Your task to perform on an android device: toggle wifi Image 0: 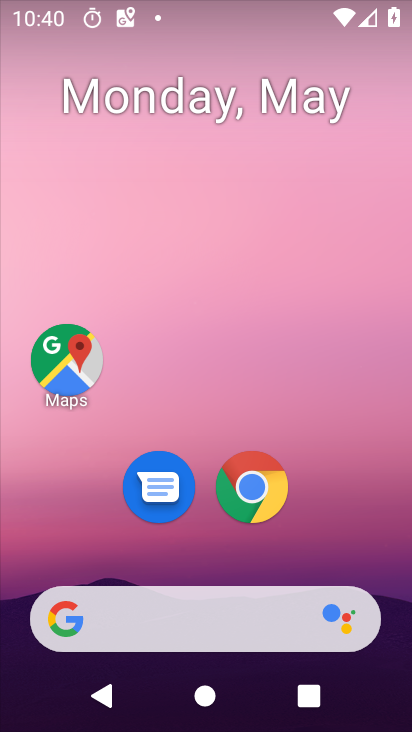
Step 0: drag from (306, 544) to (324, 118)
Your task to perform on an android device: toggle wifi Image 1: 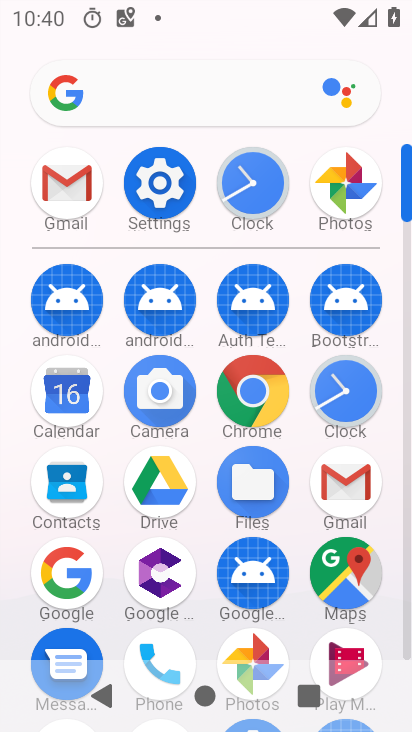
Step 1: click (147, 166)
Your task to perform on an android device: toggle wifi Image 2: 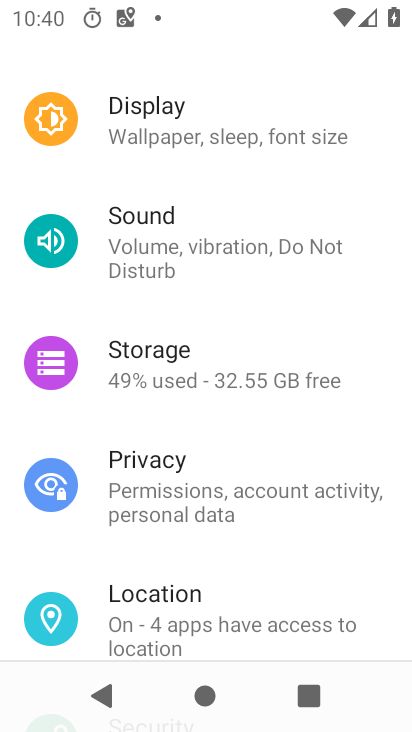
Step 2: drag from (221, 206) to (248, 352)
Your task to perform on an android device: toggle wifi Image 3: 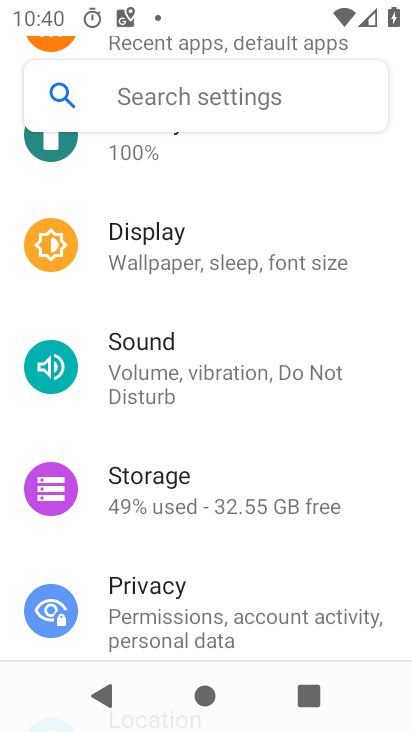
Step 3: drag from (219, 230) to (233, 335)
Your task to perform on an android device: toggle wifi Image 4: 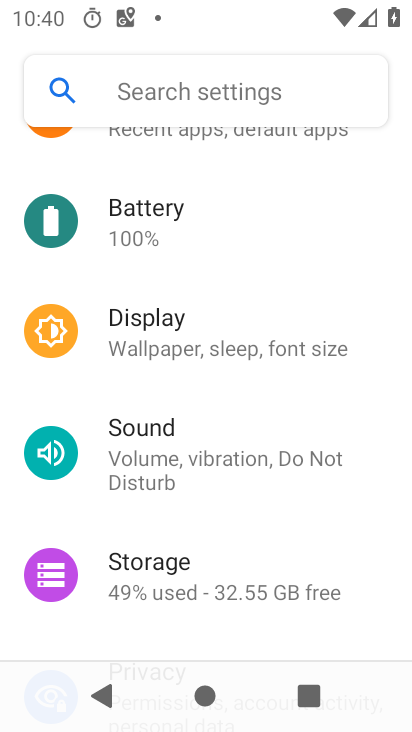
Step 4: drag from (211, 202) to (220, 309)
Your task to perform on an android device: toggle wifi Image 5: 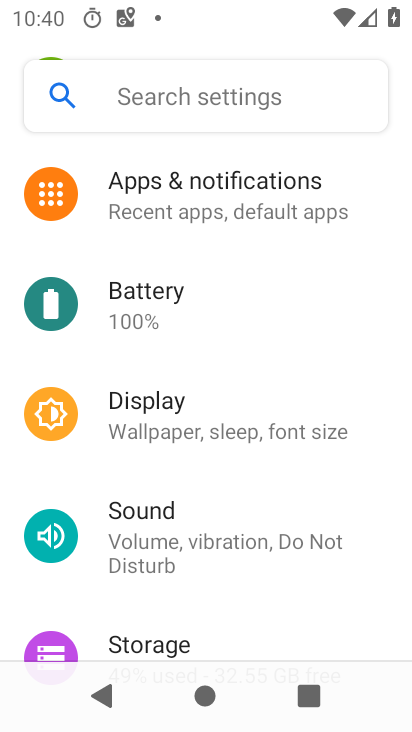
Step 5: drag from (201, 207) to (219, 300)
Your task to perform on an android device: toggle wifi Image 6: 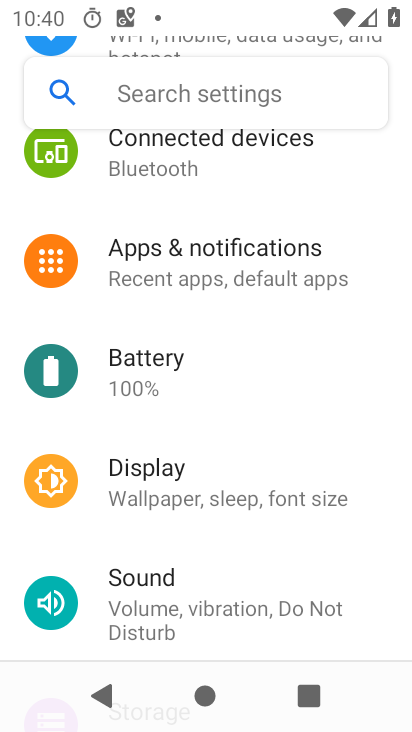
Step 6: drag from (198, 256) to (179, 399)
Your task to perform on an android device: toggle wifi Image 7: 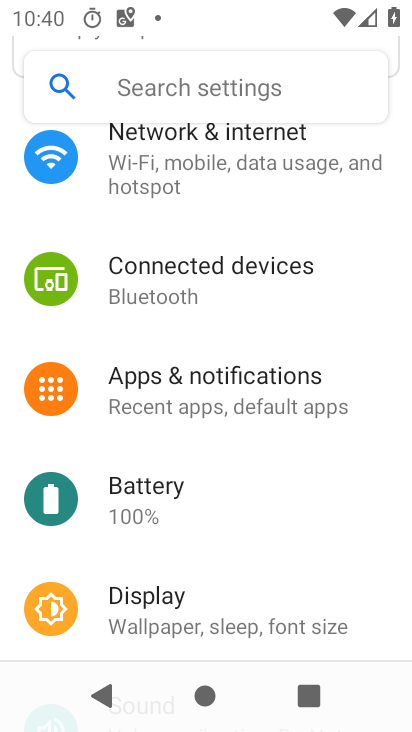
Step 7: click (197, 179)
Your task to perform on an android device: toggle wifi Image 8: 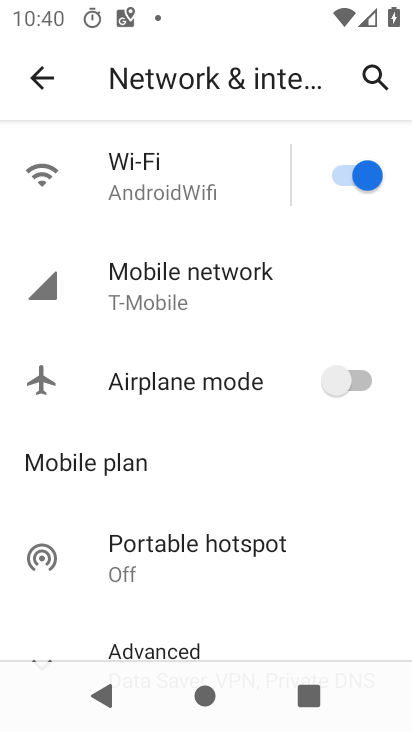
Step 8: click (333, 170)
Your task to perform on an android device: toggle wifi Image 9: 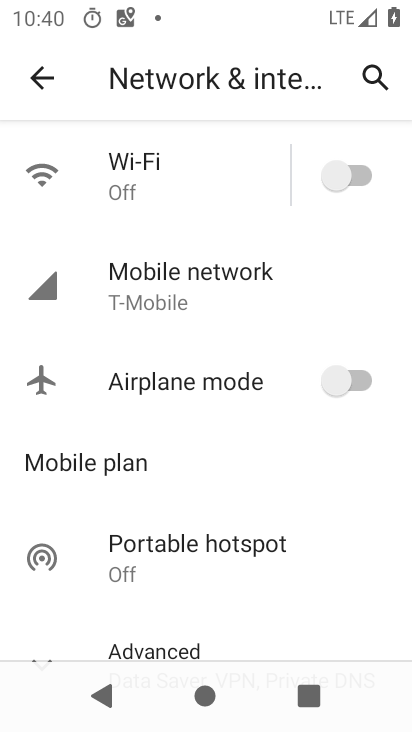
Step 9: task complete